Your task to perform on an android device: delete the emails in spam in the gmail app Image 0: 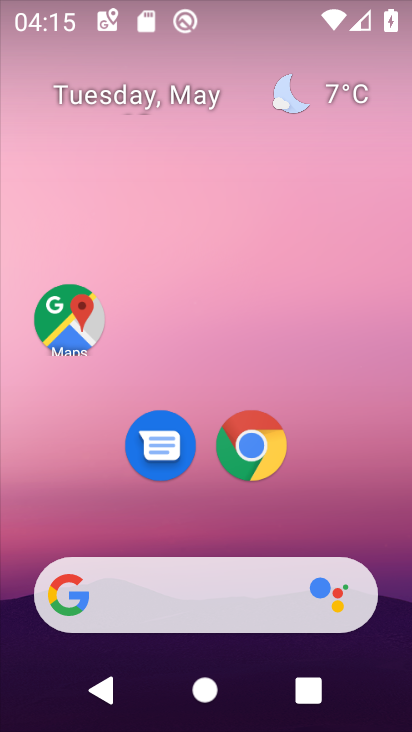
Step 0: click (256, 9)
Your task to perform on an android device: delete the emails in spam in the gmail app Image 1: 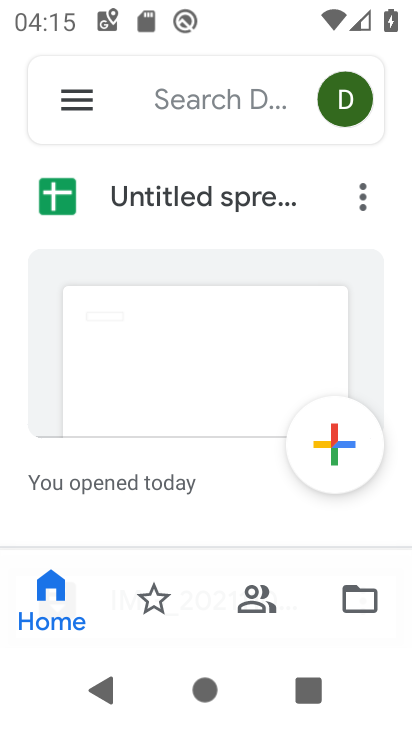
Step 1: press home button
Your task to perform on an android device: delete the emails in spam in the gmail app Image 2: 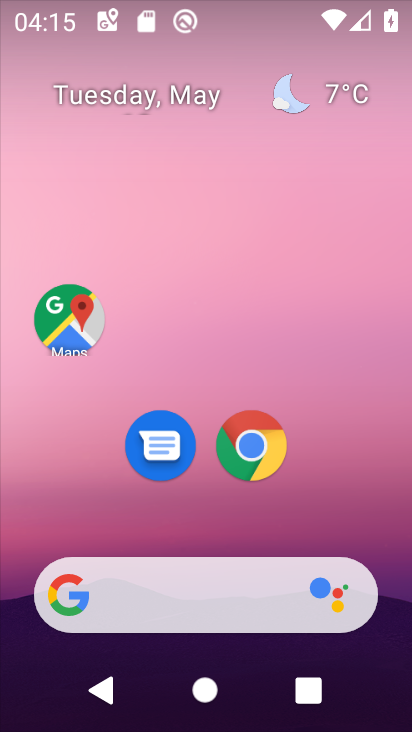
Step 2: drag from (224, 545) to (268, 7)
Your task to perform on an android device: delete the emails in spam in the gmail app Image 3: 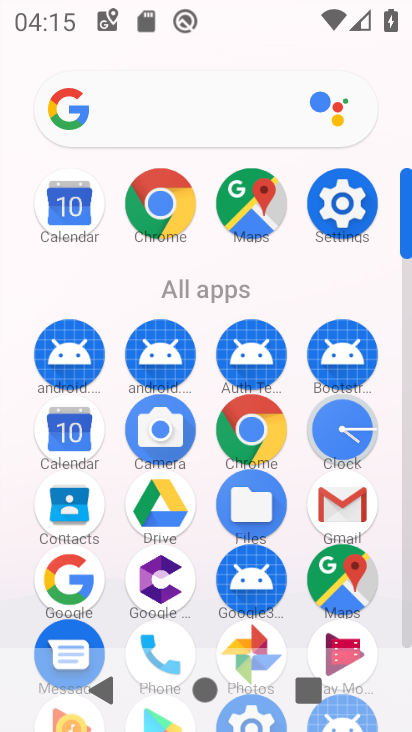
Step 3: click (357, 508)
Your task to perform on an android device: delete the emails in spam in the gmail app Image 4: 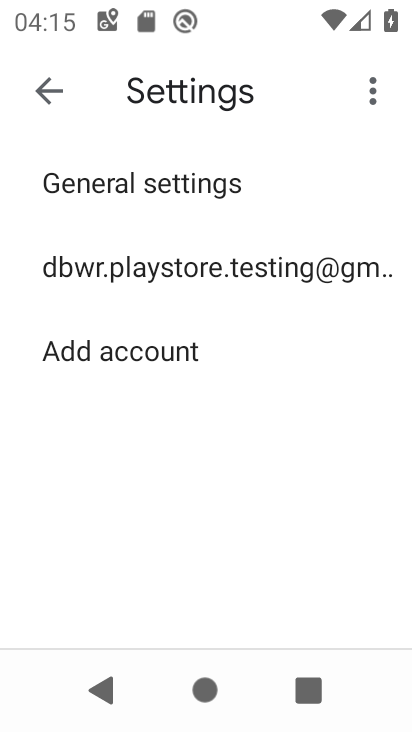
Step 4: click (47, 99)
Your task to perform on an android device: delete the emails in spam in the gmail app Image 5: 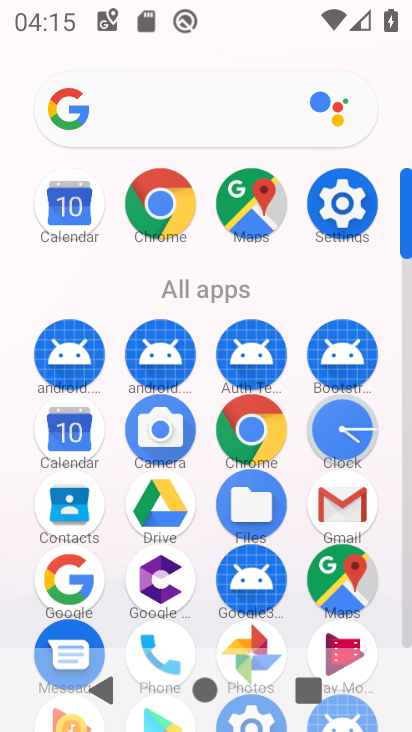
Step 5: click (363, 506)
Your task to perform on an android device: delete the emails in spam in the gmail app Image 6: 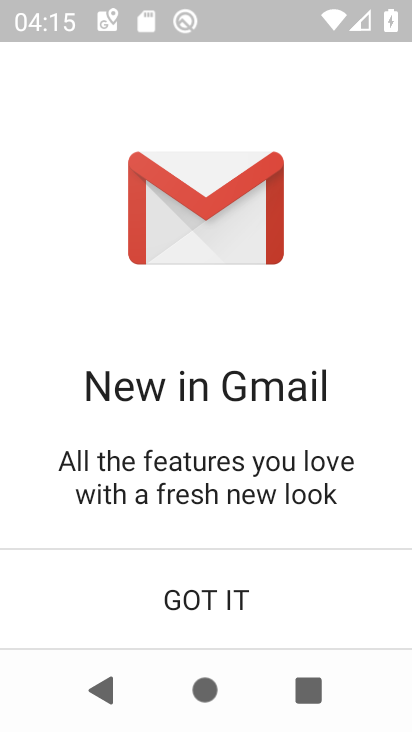
Step 6: click (277, 615)
Your task to perform on an android device: delete the emails in spam in the gmail app Image 7: 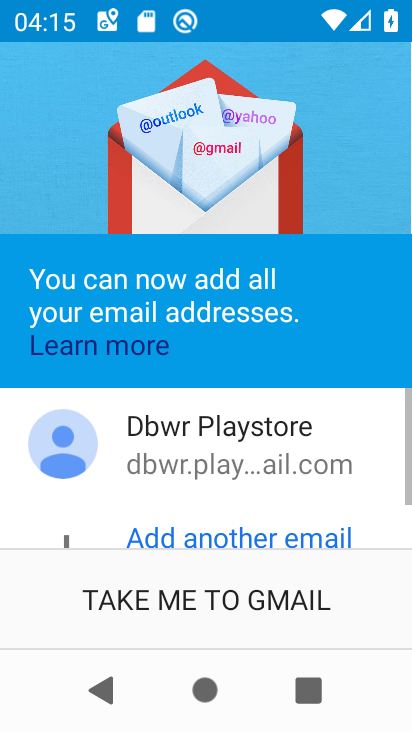
Step 7: click (274, 609)
Your task to perform on an android device: delete the emails in spam in the gmail app Image 8: 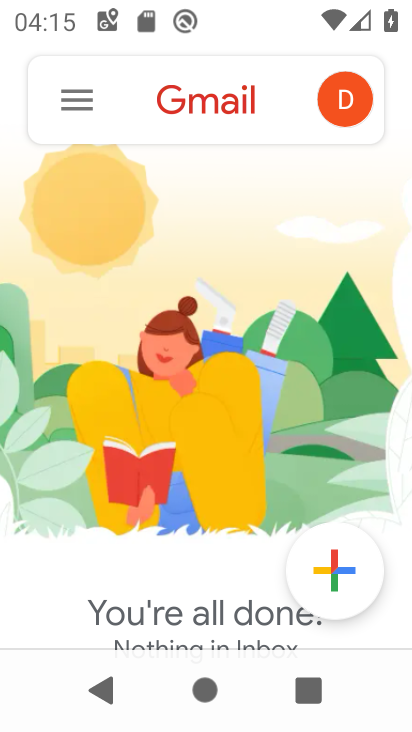
Step 8: click (68, 95)
Your task to perform on an android device: delete the emails in spam in the gmail app Image 9: 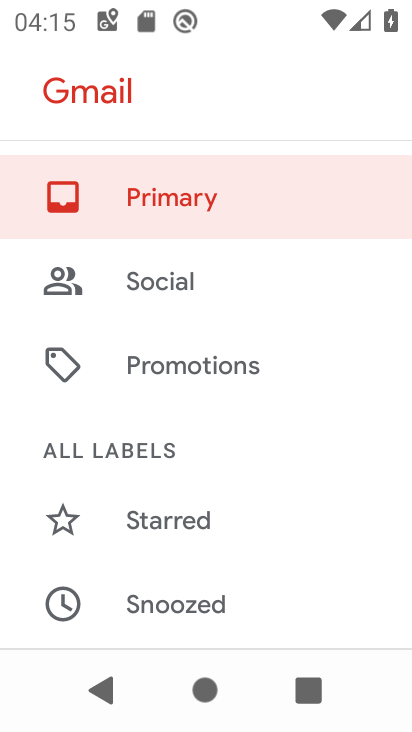
Step 9: drag from (168, 561) to (237, 220)
Your task to perform on an android device: delete the emails in spam in the gmail app Image 10: 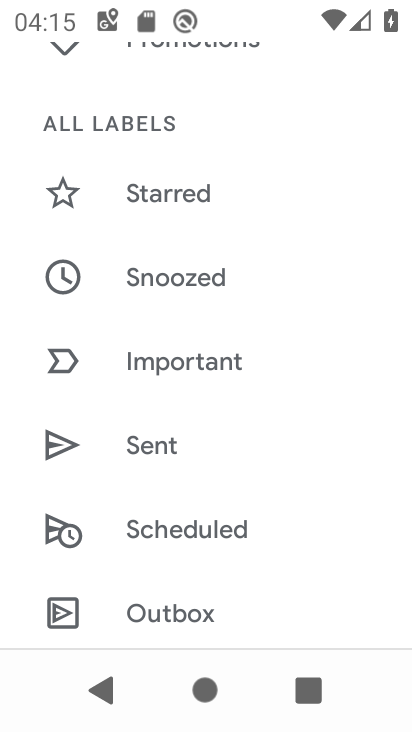
Step 10: drag from (194, 579) to (226, 221)
Your task to perform on an android device: delete the emails in spam in the gmail app Image 11: 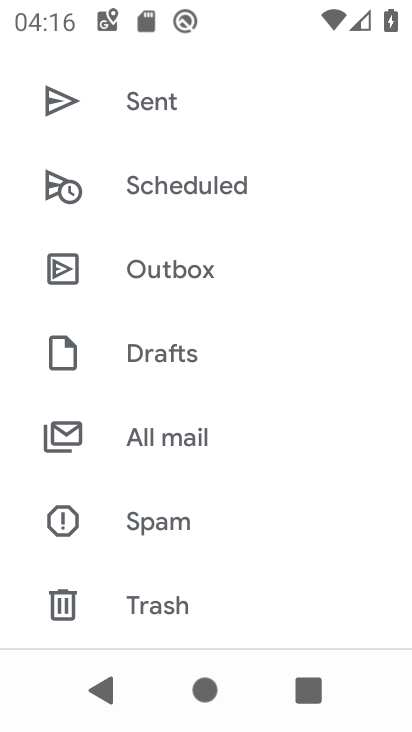
Step 11: drag from (171, 503) to (183, 307)
Your task to perform on an android device: delete the emails in spam in the gmail app Image 12: 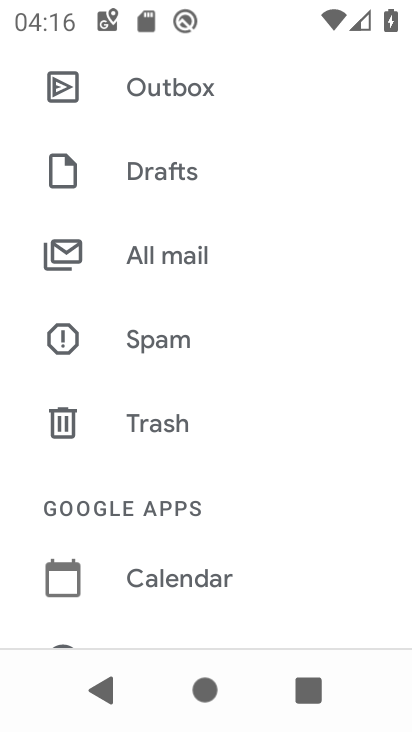
Step 12: click (150, 353)
Your task to perform on an android device: delete the emails in spam in the gmail app Image 13: 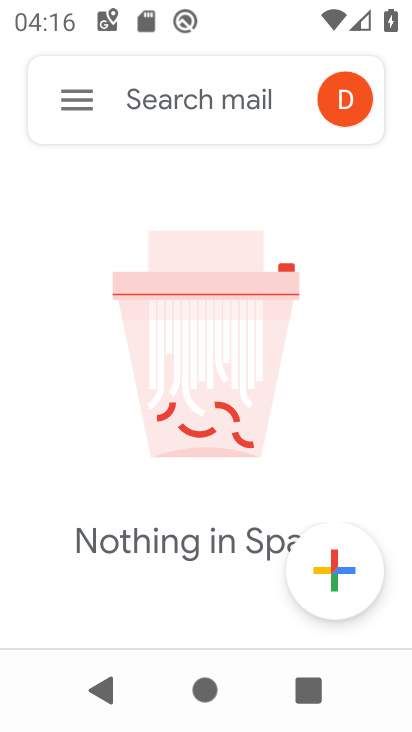
Step 13: task complete